Your task to perform on an android device: Open calendar and show me the first week of next month Image 0: 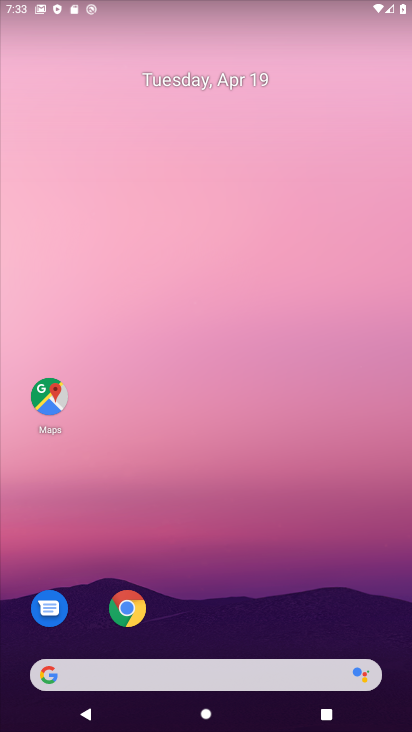
Step 0: drag from (331, 619) to (271, 13)
Your task to perform on an android device: Open calendar and show me the first week of next month Image 1: 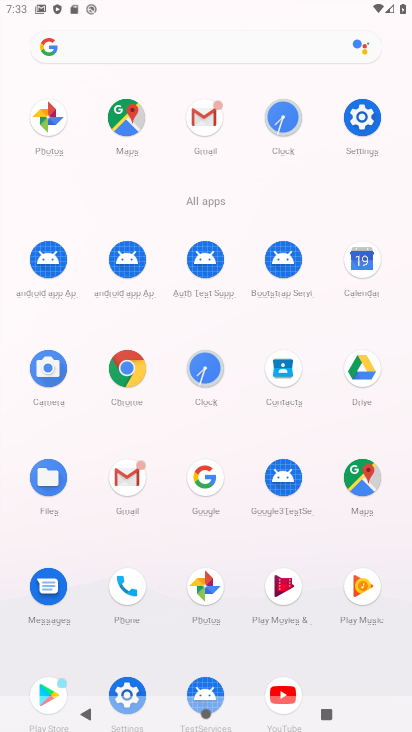
Step 1: click (357, 273)
Your task to perform on an android device: Open calendar and show me the first week of next month Image 2: 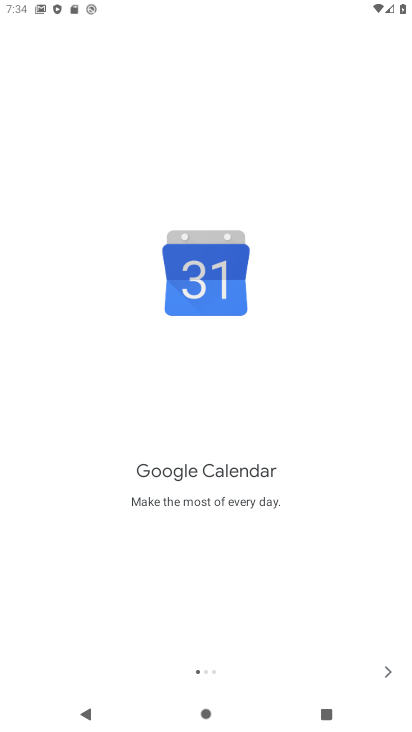
Step 2: click (389, 677)
Your task to perform on an android device: Open calendar and show me the first week of next month Image 3: 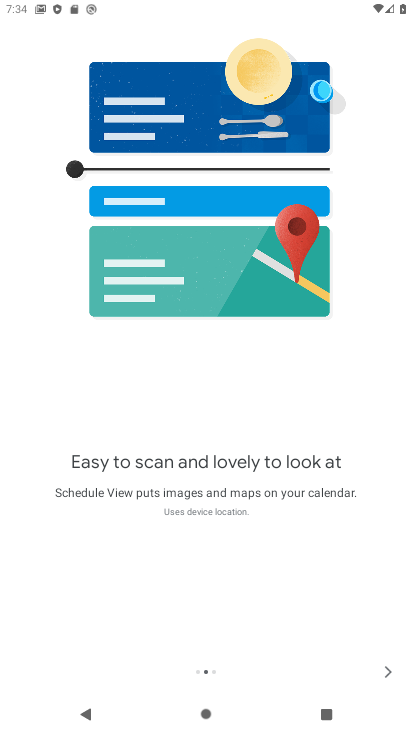
Step 3: click (389, 677)
Your task to perform on an android device: Open calendar and show me the first week of next month Image 4: 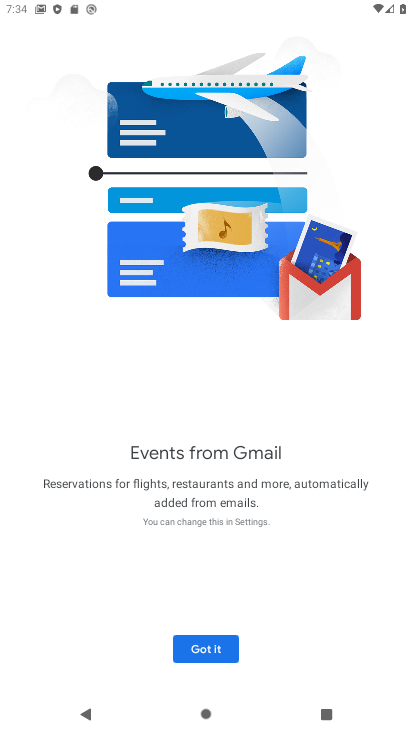
Step 4: click (215, 653)
Your task to perform on an android device: Open calendar and show me the first week of next month Image 5: 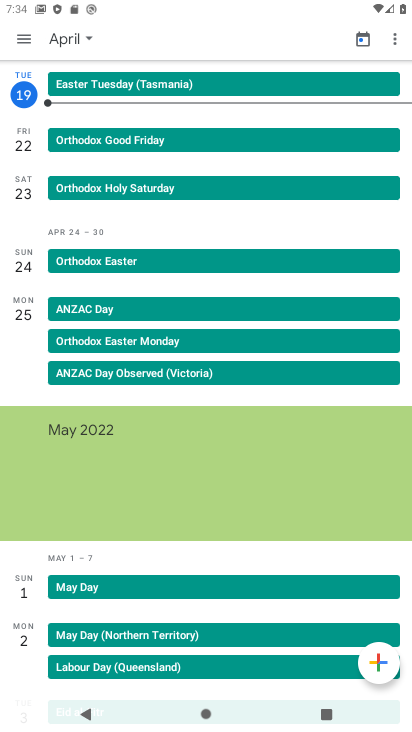
Step 5: click (80, 46)
Your task to perform on an android device: Open calendar and show me the first week of next month Image 6: 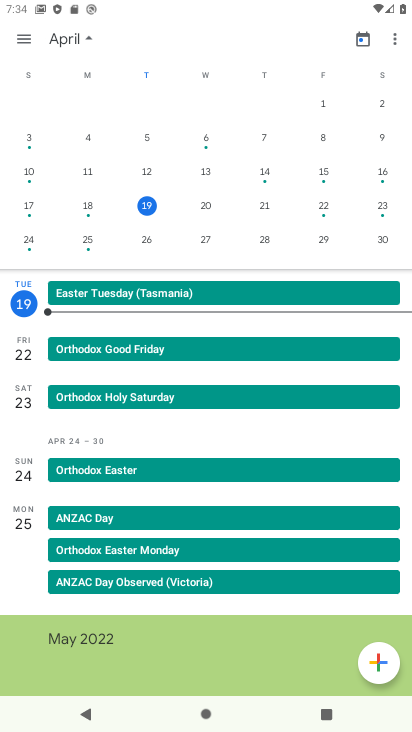
Step 6: drag from (392, 227) to (4, 212)
Your task to perform on an android device: Open calendar and show me the first week of next month Image 7: 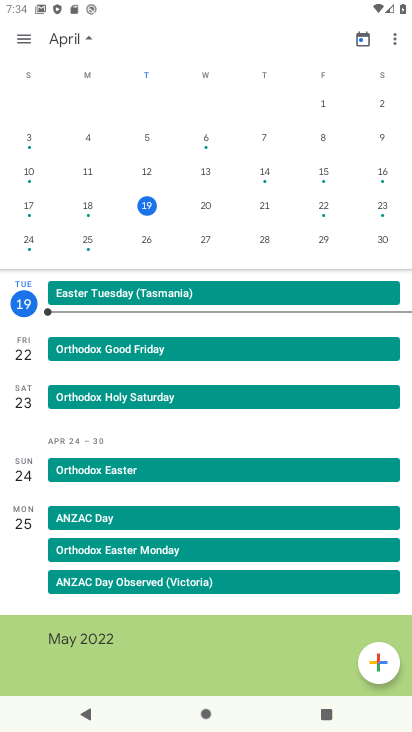
Step 7: drag from (394, 204) to (0, 150)
Your task to perform on an android device: Open calendar and show me the first week of next month Image 8: 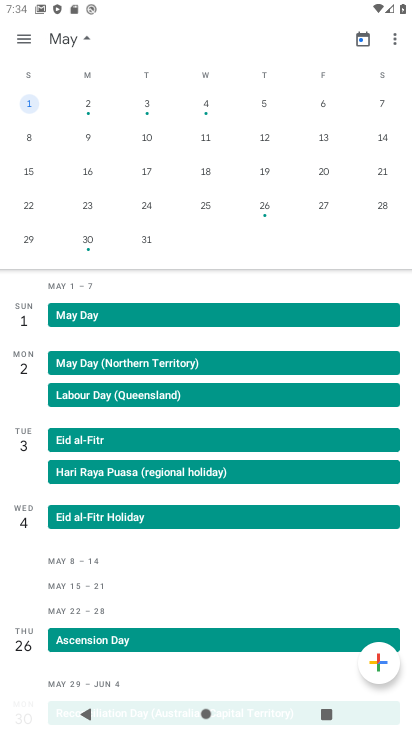
Step 8: click (206, 107)
Your task to perform on an android device: Open calendar and show me the first week of next month Image 9: 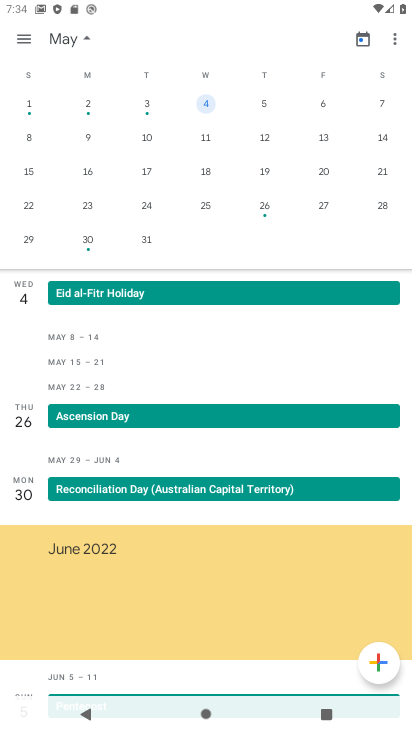
Step 9: task complete